Your task to perform on an android device: change notification settings in the gmail app Image 0: 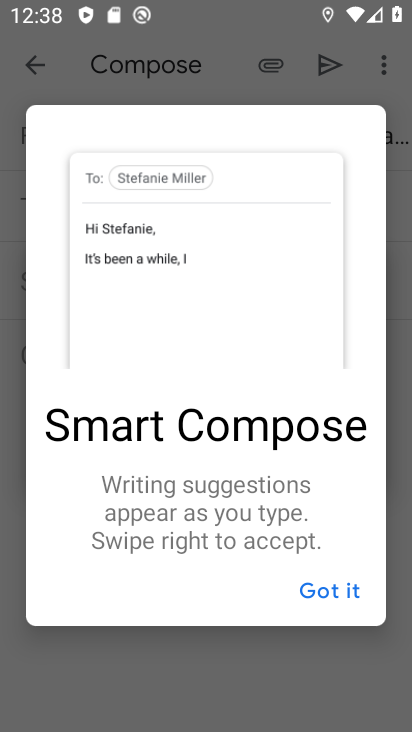
Step 0: press back button
Your task to perform on an android device: change notification settings in the gmail app Image 1: 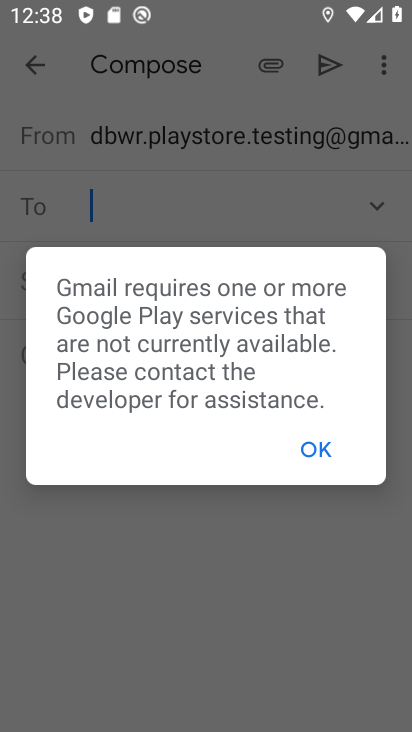
Step 1: press back button
Your task to perform on an android device: change notification settings in the gmail app Image 2: 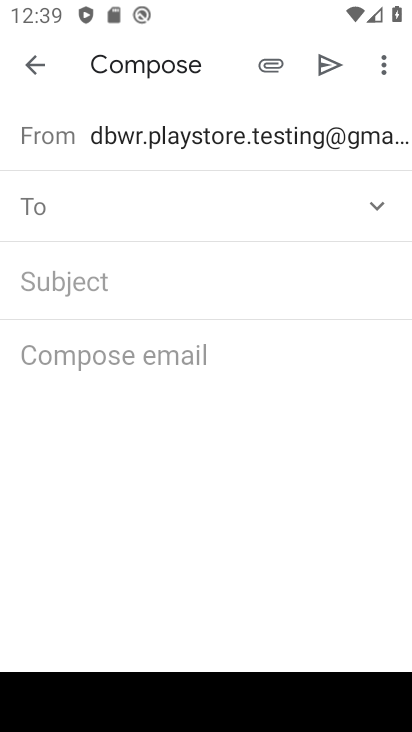
Step 2: press back button
Your task to perform on an android device: change notification settings in the gmail app Image 3: 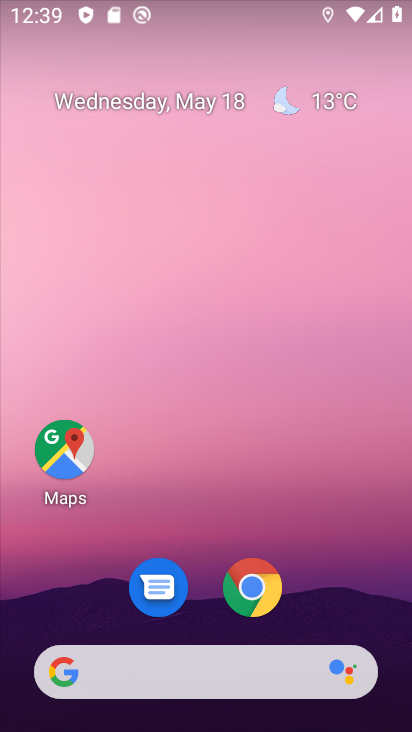
Step 3: drag from (227, 595) to (279, 79)
Your task to perform on an android device: change notification settings in the gmail app Image 4: 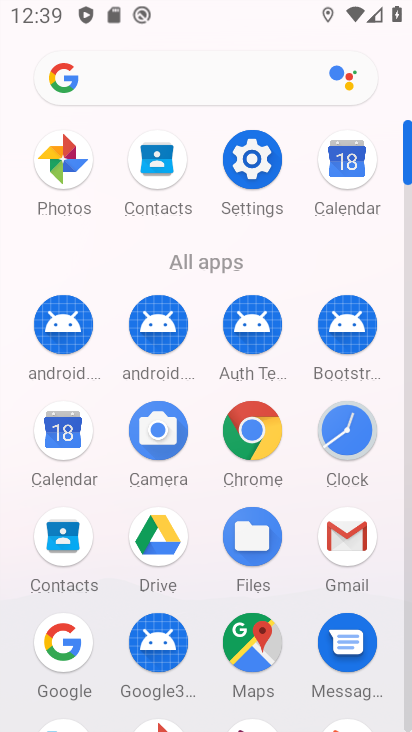
Step 4: click (356, 554)
Your task to perform on an android device: change notification settings in the gmail app Image 5: 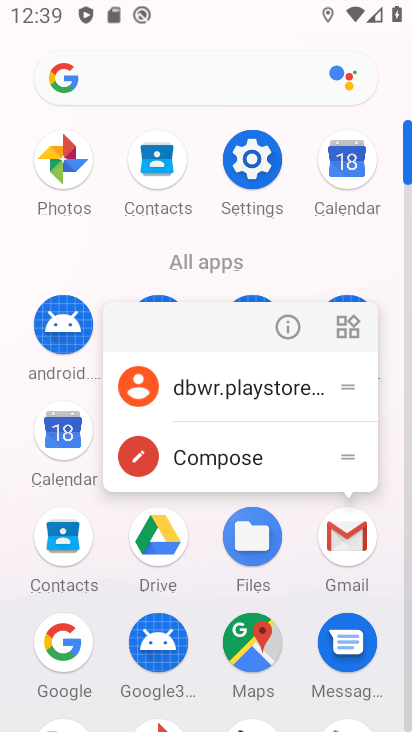
Step 5: click (288, 321)
Your task to perform on an android device: change notification settings in the gmail app Image 6: 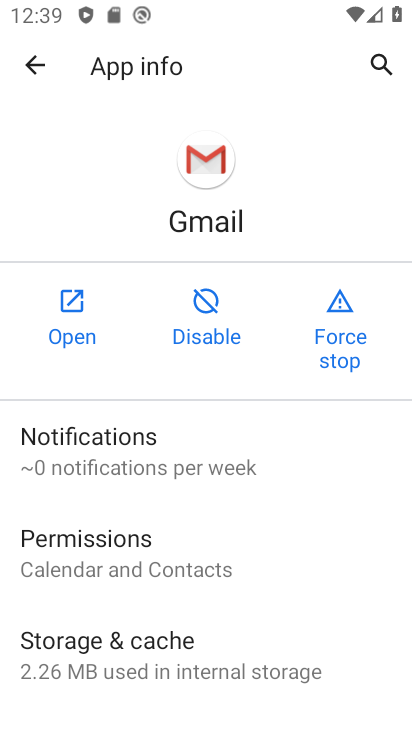
Step 6: click (175, 444)
Your task to perform on an android device: change notification settings in the gmail app Image 7: 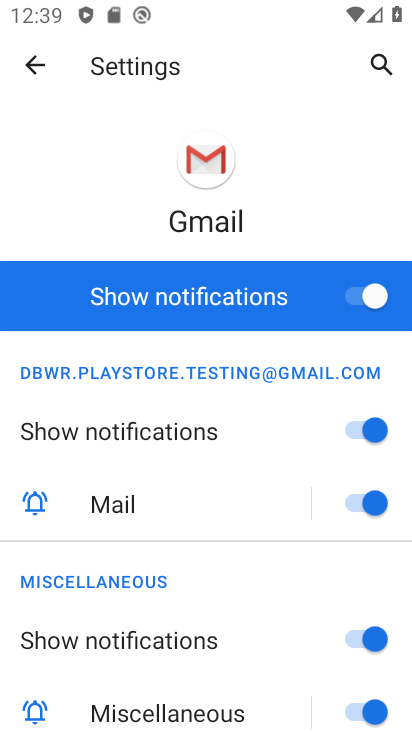
Step 7: click (375, 507)
Your task to perform on an android device: change notification settings in the gmail app Image 8: 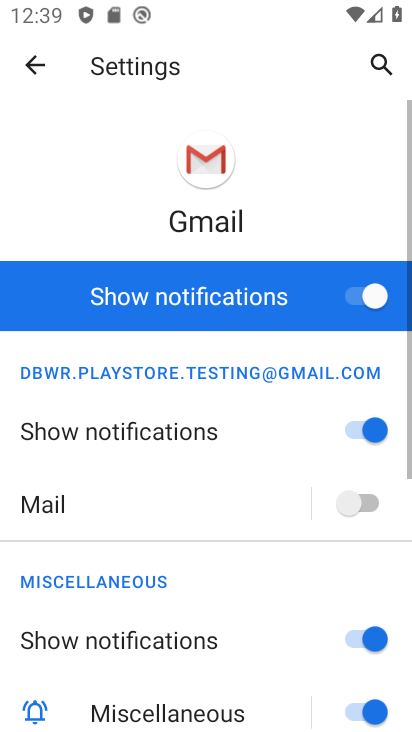
Step 8: task complete